Your task to perform on an android device: open a new tab in the chrome app Image 0: 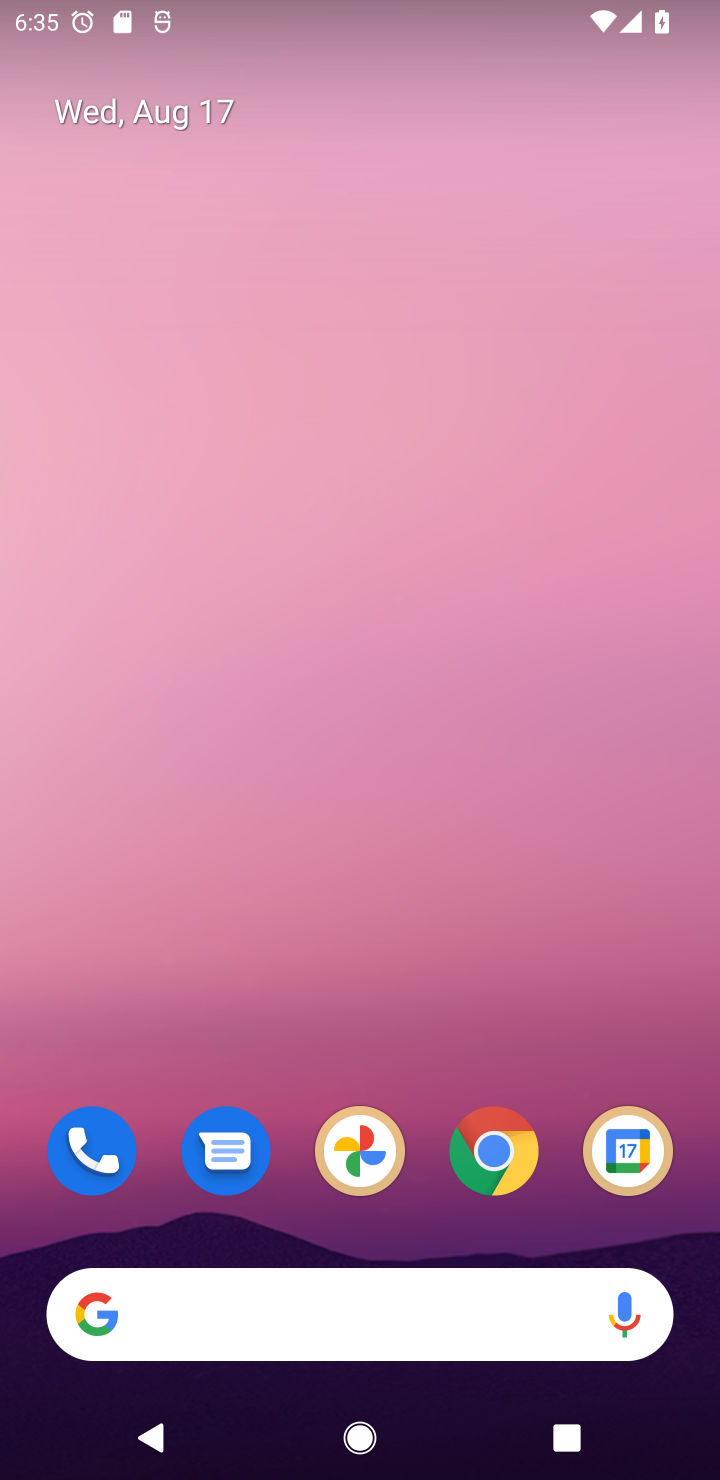
Step 0: click (517, 1170)
Your task to perform on an android device: open a new tab in the chrome app Image 1: 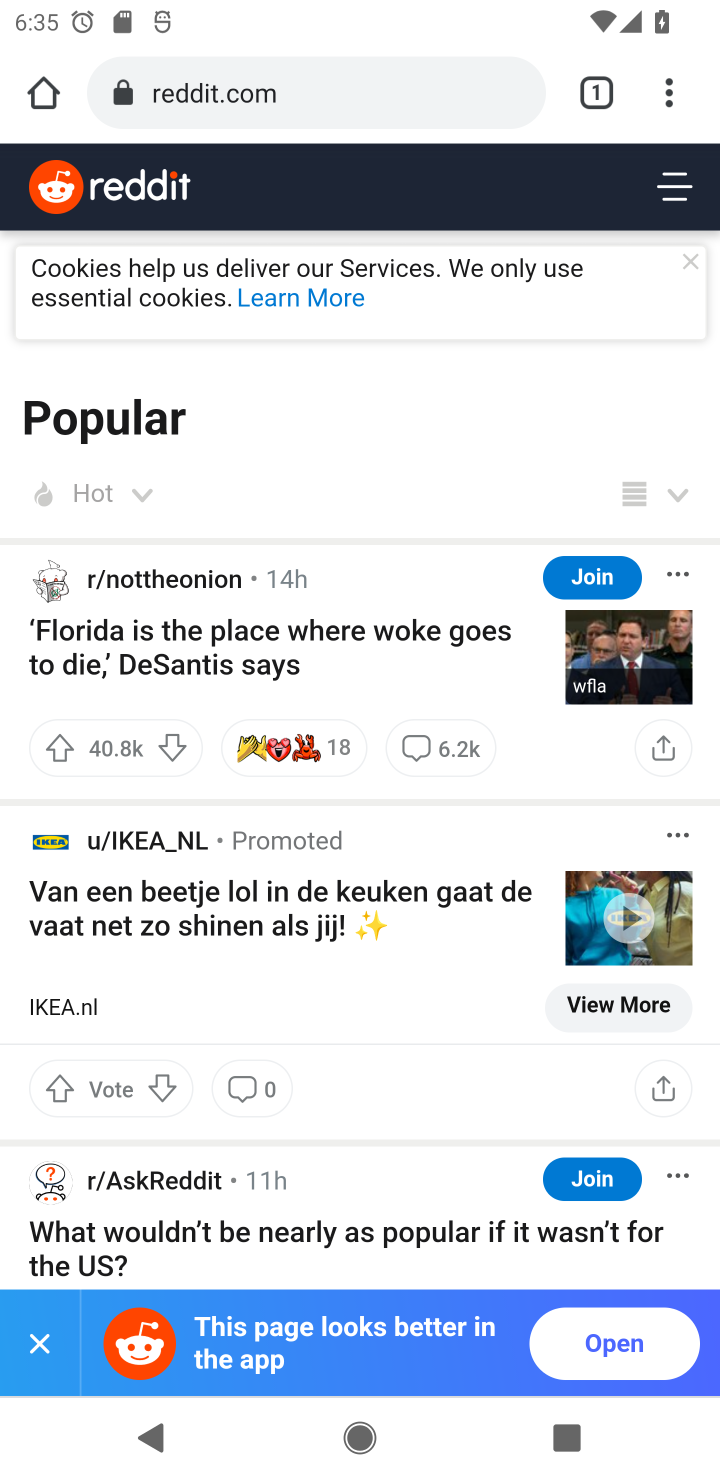
Step 1: click (608, 111)
Your task to perform on an android device: open a new tab in the chrome app Image 2: 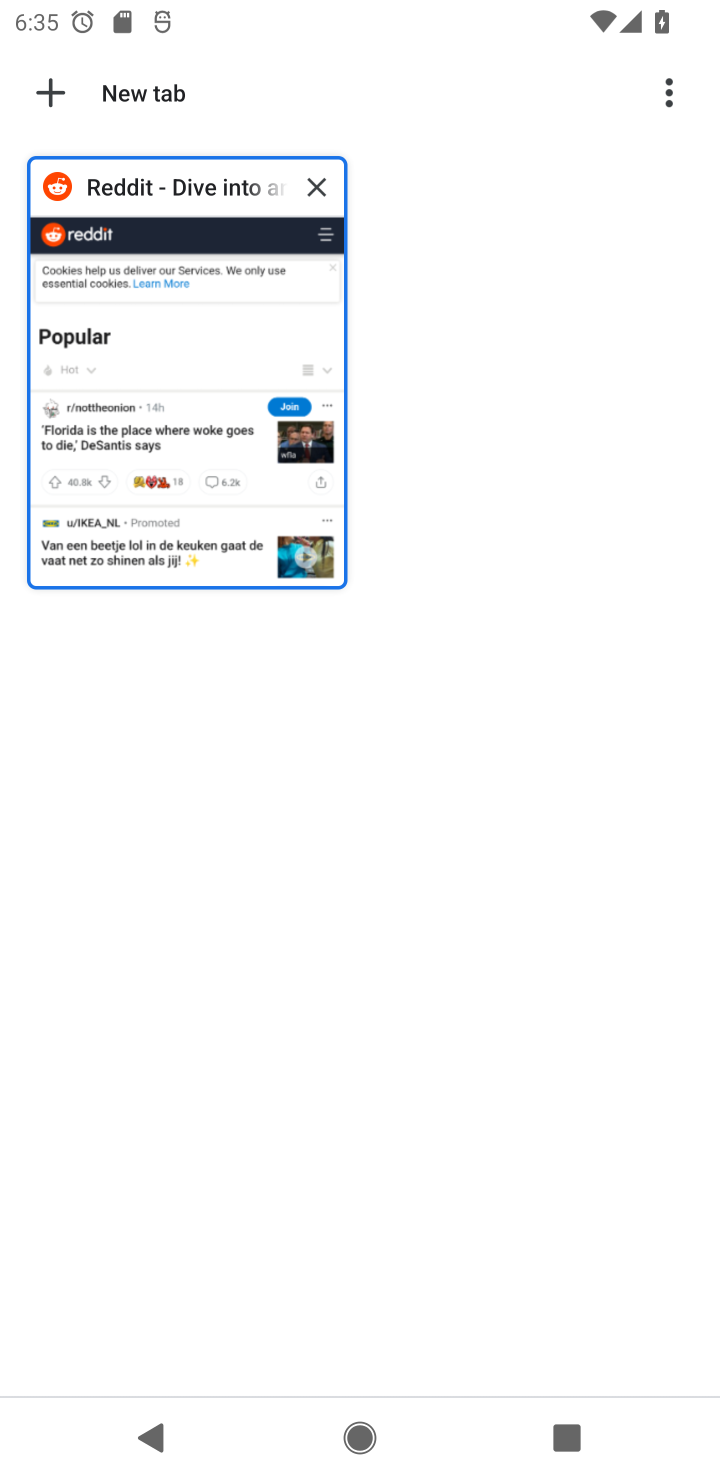
Step 2: click (142, 409)
Your task to perform on an android device: open a new tab in the chrome app Image 3: 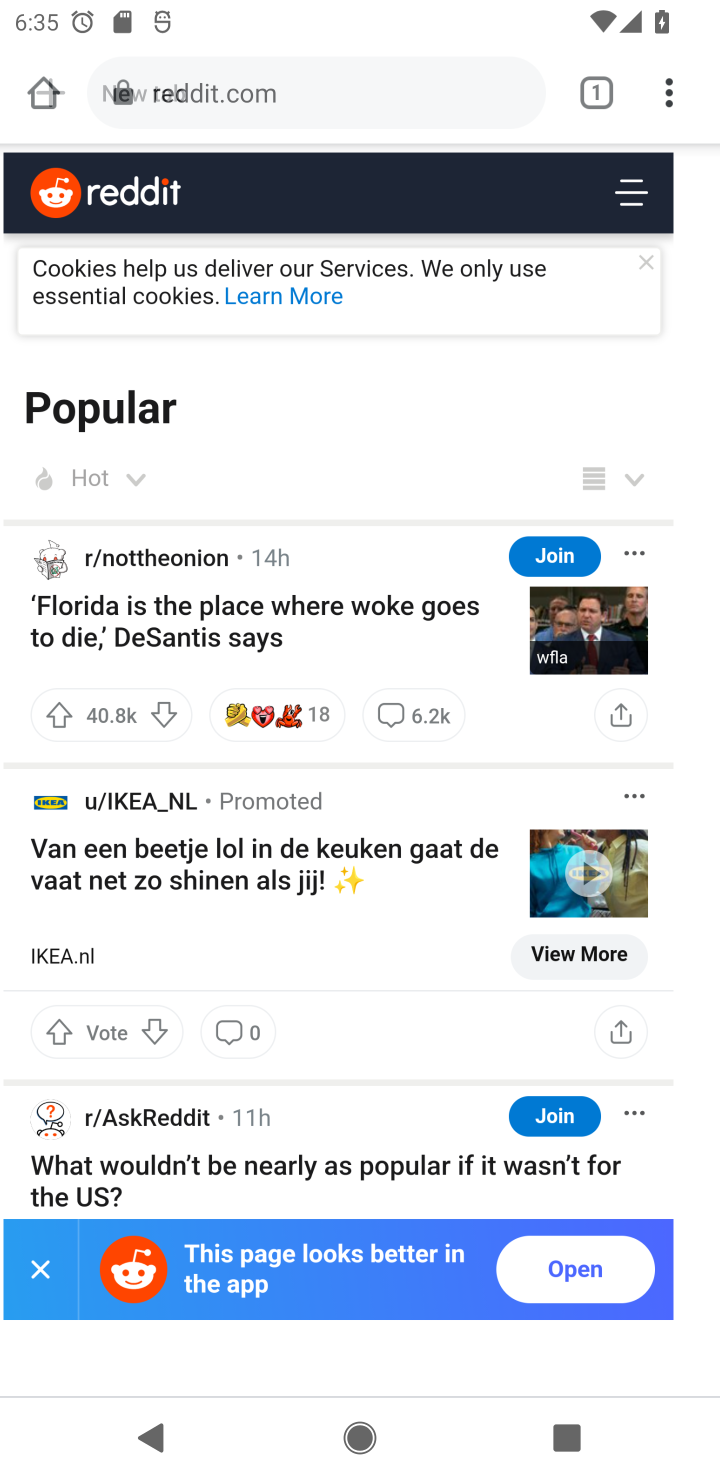
Step 3: task complete